Your task to perform on an android device: Open Youtube and go to "Your channel" Image 0: 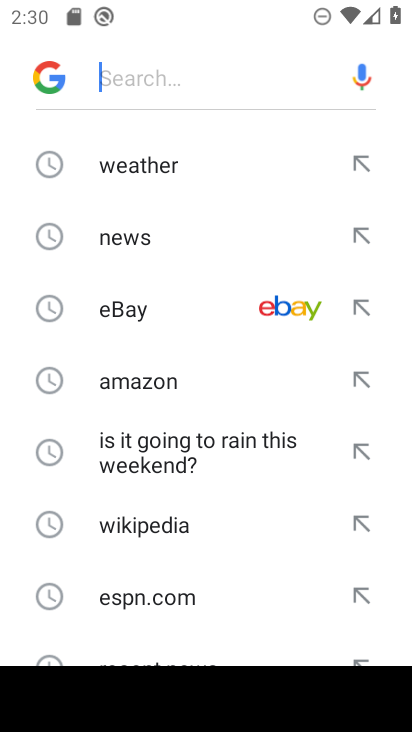
Step 0: press back button
Your task to perform on an android device: Open Youtube and go to "Your channel" Image 1: 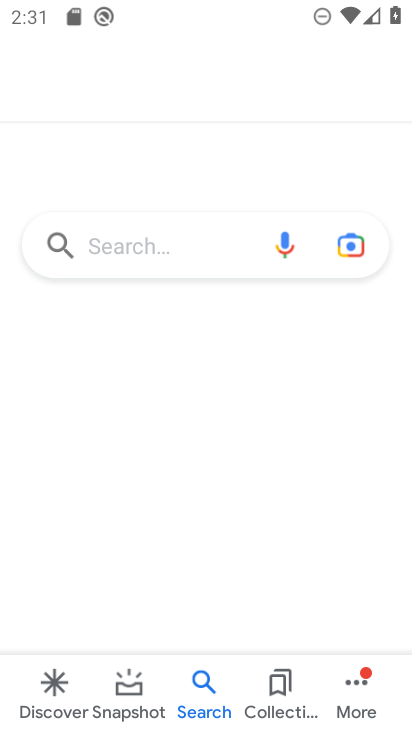
Step 1: press home button
Your task to perform on an android device: Open Youtube and go to "Your channel" Image 2: 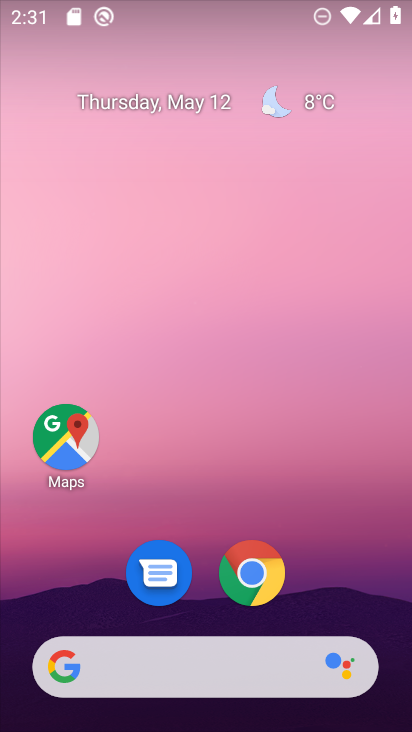
Step 2: drag from (326, 591) to (80, 16)
Your task to perform on an android device: Open Youtube and go to "Your channel" Image 3: 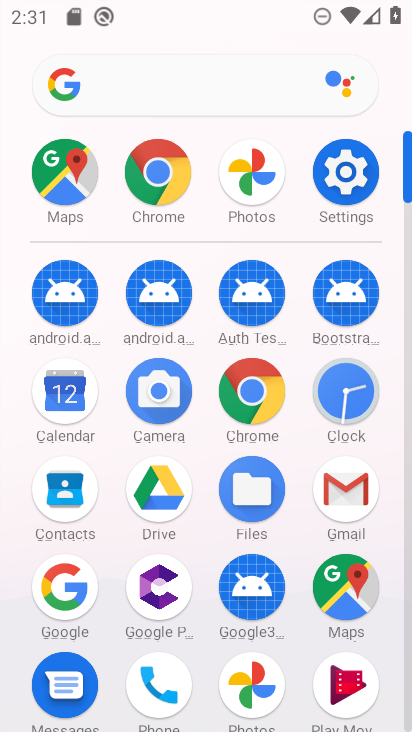
Step 3: drag from (299, 548) to (213, 216)
Your task to perform on an android device: Open Youtube and go to "Your channel" Image 4: 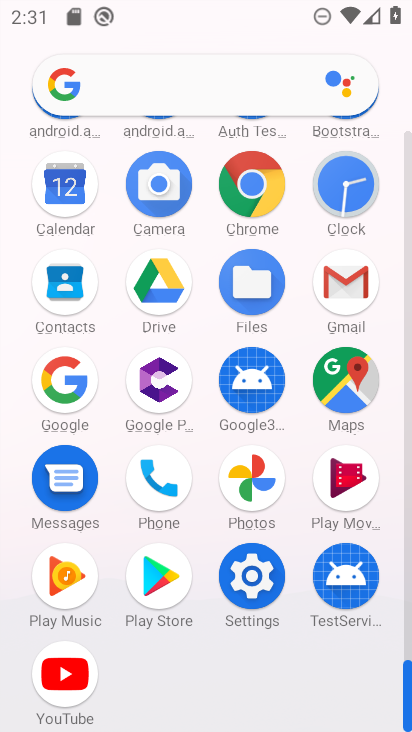
Step 4: click (48, 675)
Your task to perform on an android device: Open Youtube and go to "Your channel" Image 5: 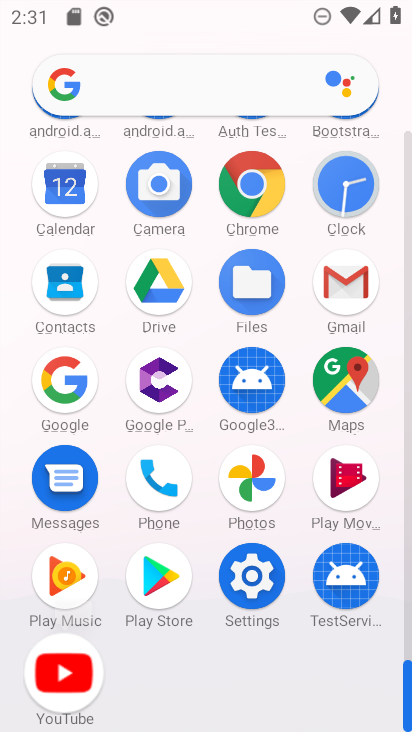
Step 5: click (50, 678)
Your task to perform on an android device: Open Youtube and go to "Your channel" Image 6: 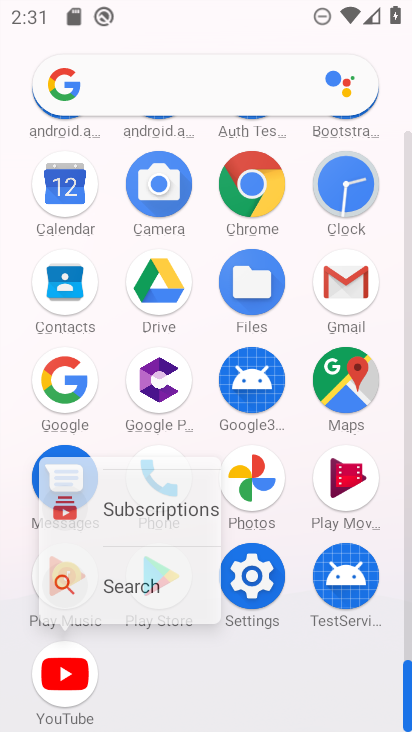
Step 6: click (50, 678)
Your task to perform on an android device: Open Youtube and go to "Your channel" Image 7: 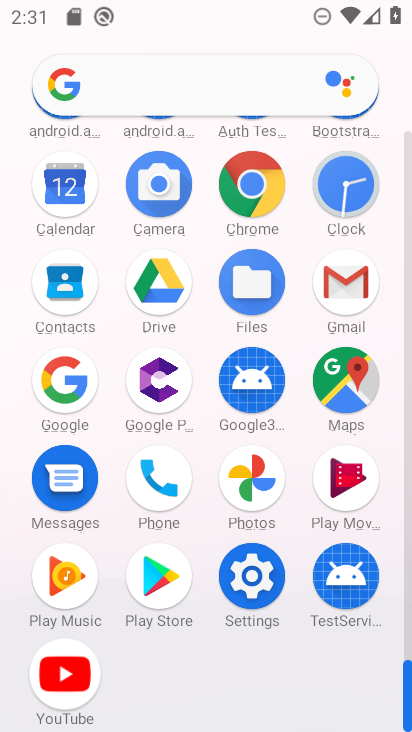
Step 7: click (54, 678)
Your task to perform on an android device: Open Youtube and go to "Your channel" Image 8: 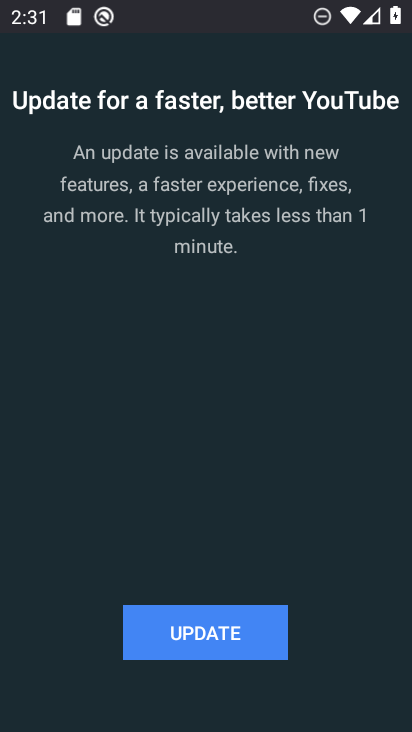
Step 8: click (213, 631)
Your task to perform on an android device: Open Youtube and go to "Your channel" Image 9: 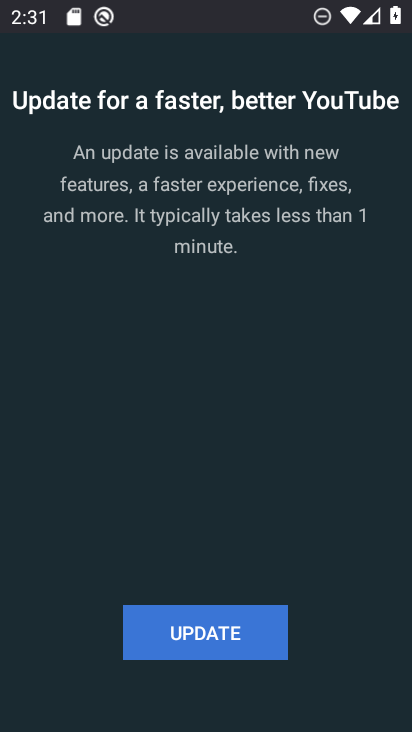
Step 9: click (202, 629)
Your task to perform on an android device: Open Youtube and go to "Your channel" Image 10: 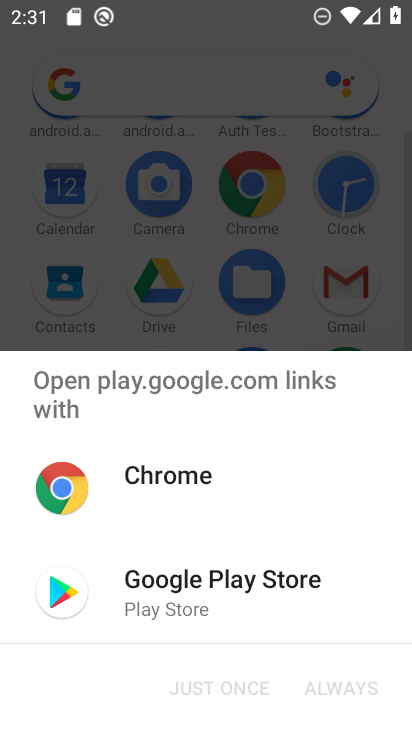
Step 10: click (331, 256)
Your task to perform on an android device: Open Youtube and go to "Your channel" Image 11: 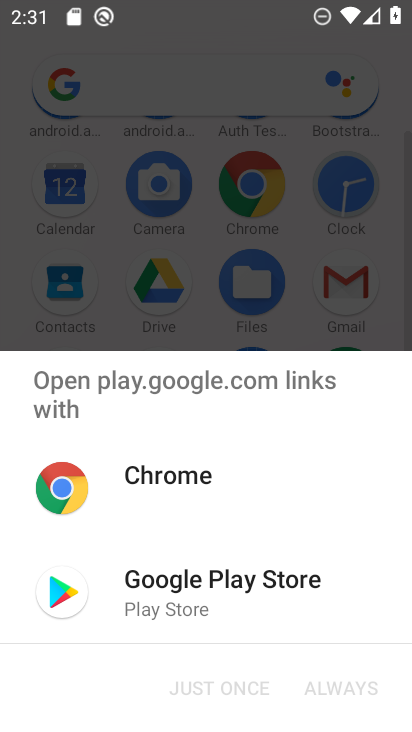
Step 11: click (314, 243)
Your task to perform on an android device: Open Youtube and go to "Your channel" Image 12: 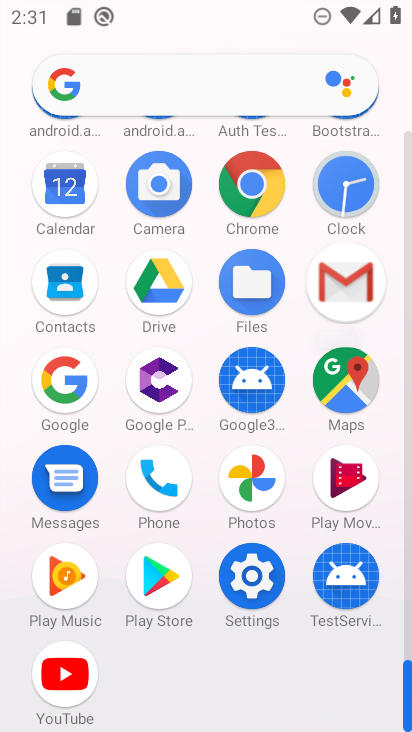
Step 12: click (313, 241)
Your task to perform on an android device: Open Youtube and go to "Your channel" Image 13: 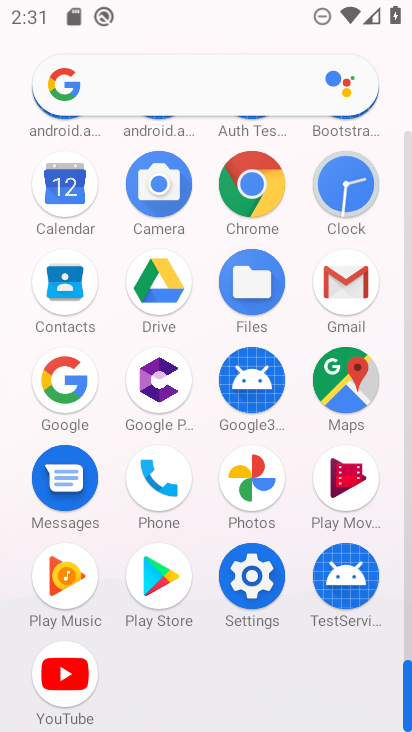
Step 13: click (63, 674)
Your task to perform on an android device: Open Youtube and go to "Your channel" Image 14: 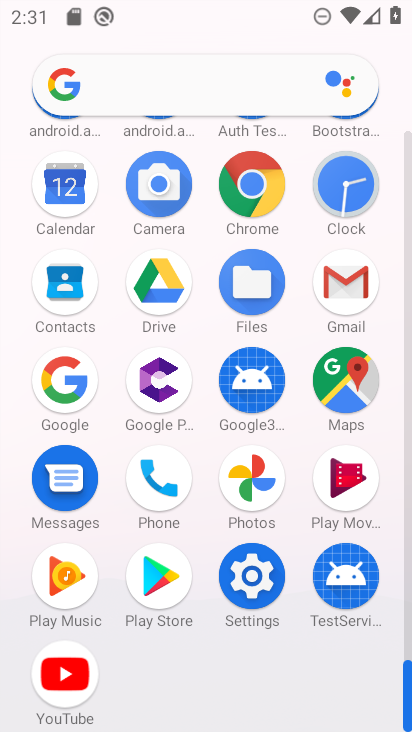
Step 14: click (58, 675)
Your task to perform on an android device: Open Youtube and go to "Your channel" Image 15: 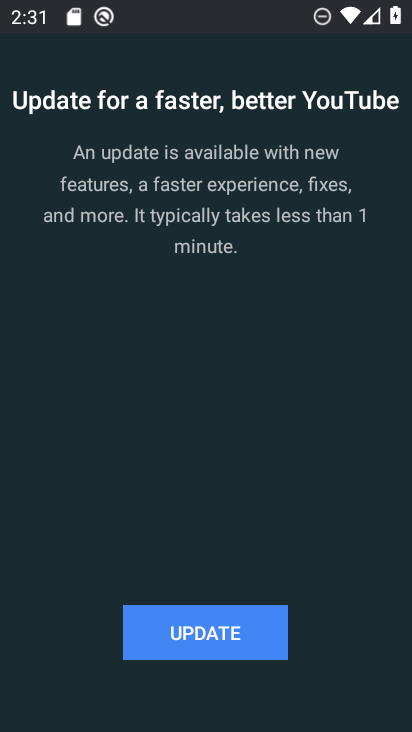
Step 15: click (208, 630)
Your task to perform on an android device: Open Youtube and go to "Your channel" Image 16: 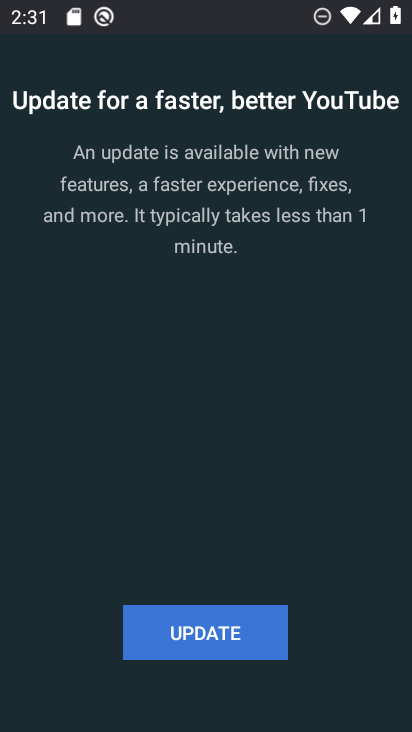
Step 16: click (212, 639)
Your task to perform on an android device: Open Youtube and go to "Your channel" Image 17: 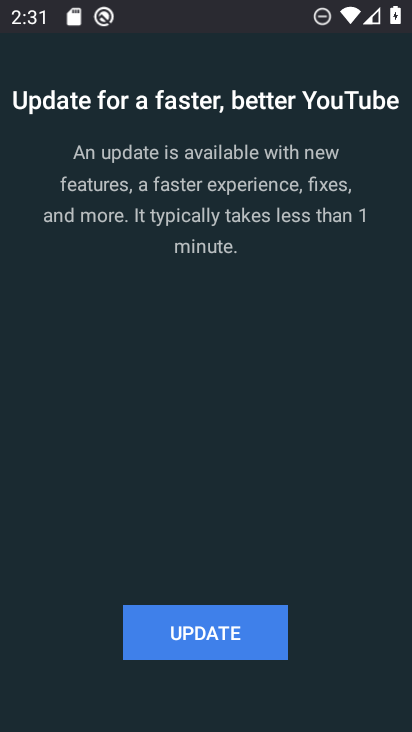
Step 17: click (212, 639)
Your task to perform on an android device: Open Youtube and go to "Your channel" Image 18: 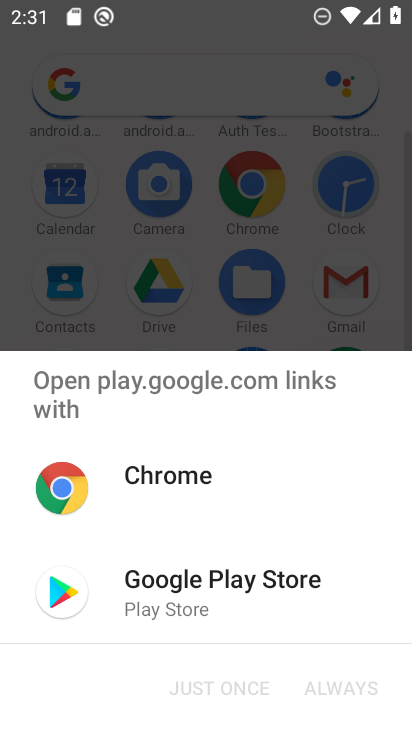
Step 18: click (171, 582)
Your task to perform on an android device: Open Youtube and go to "Your channel" Image 19: 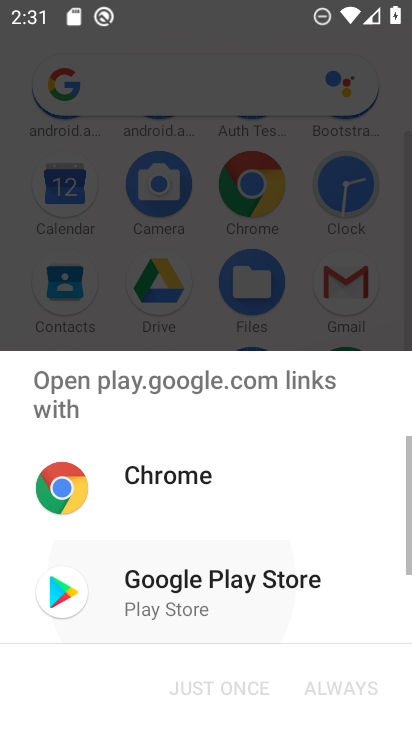
Step 19: click (171, 582)
Your task to perform on an android device: Open Youtube and go to "Your channel" Image 20: 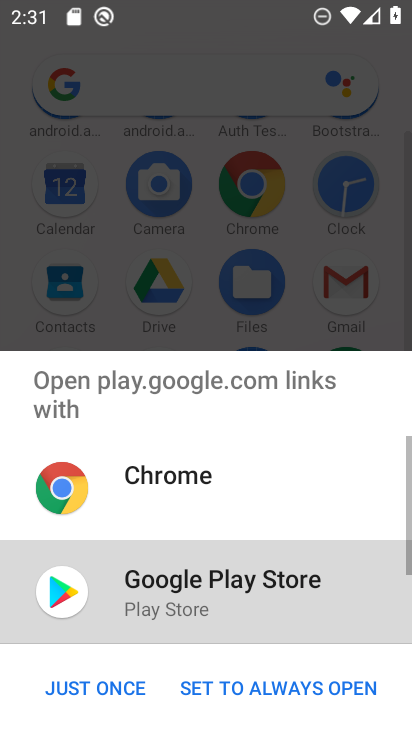
Step 20: click (172, 582)
Your task to perform on an android device: Open Youtube and go to "Your channel" Image 21: 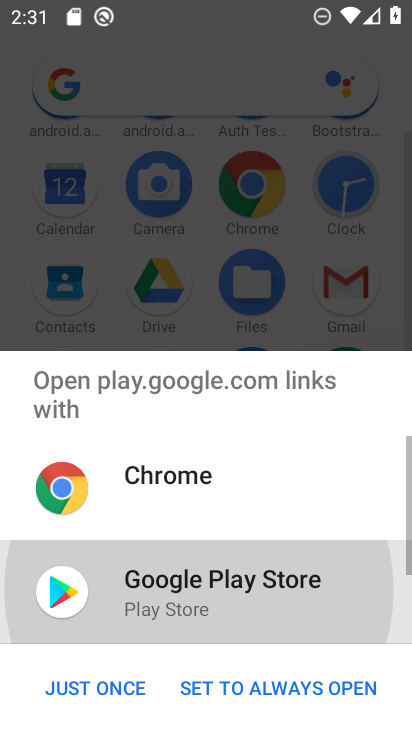
Step 21: click (171, 586)
Your task to perform on an android device: Open Youtube and go to "Your channel" Image 22: 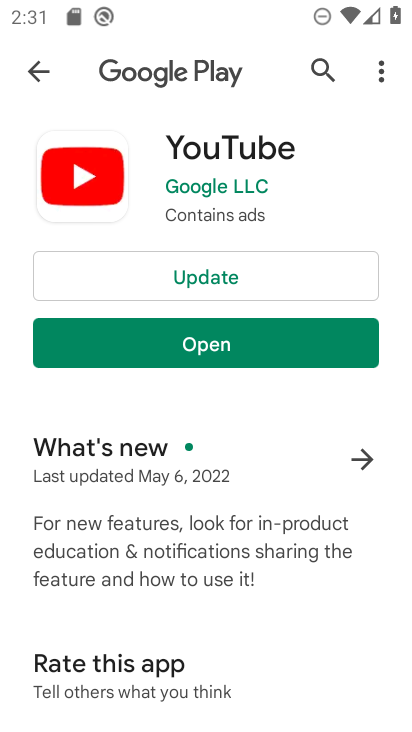
Step 22: click (217, 274)
Your task to perform on an android device: Open Youtube and go to "Your channel" Image 23: 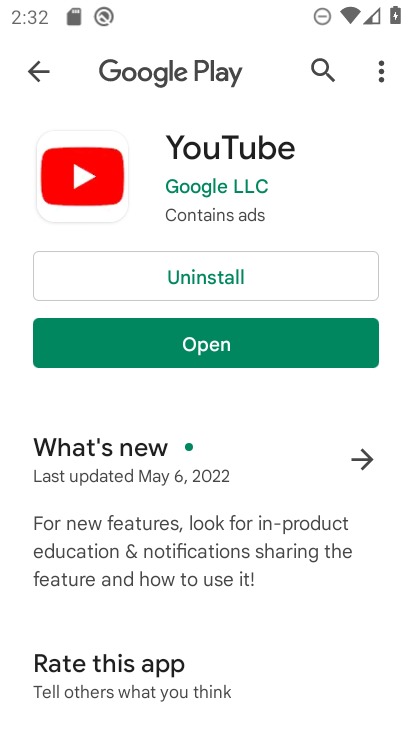
Step 23: click (202, 346)
Your task to perform on an android device: Open Youtube and go to "Your channel" Image 24: 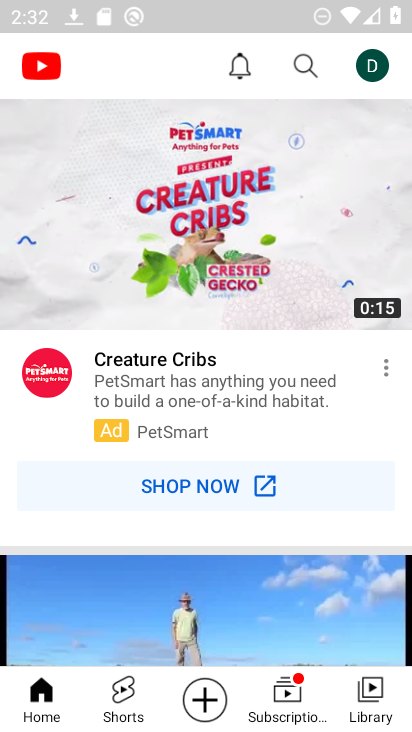
Step 24: task complete